Your task to perform on an android device: Search for Italian restaurants on Maps Image 0: 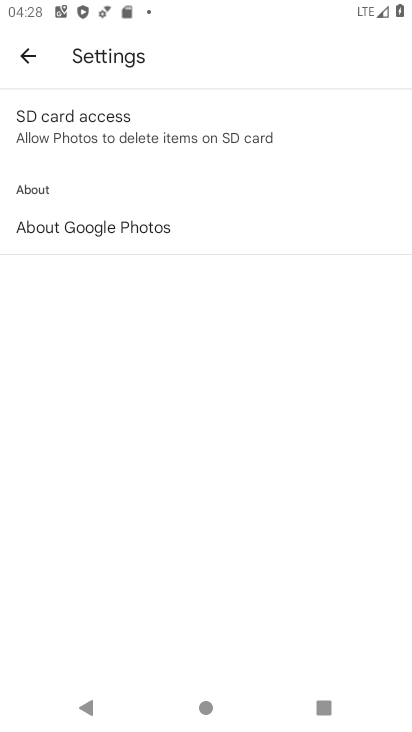
Step 0: press home button
Your task to perform on an android device: Search for Italian restaurants on Maps Image 1: 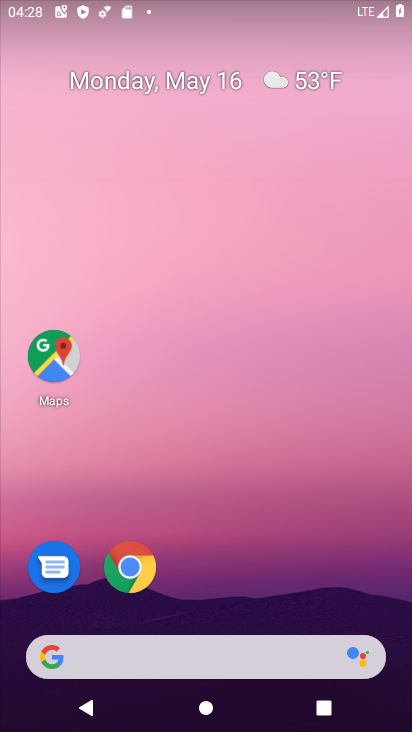
Step 1: drag from (185, 672) to (214, 117)
Your task to perform on an android device: Search for Italian restaurants on Maps Image 2: 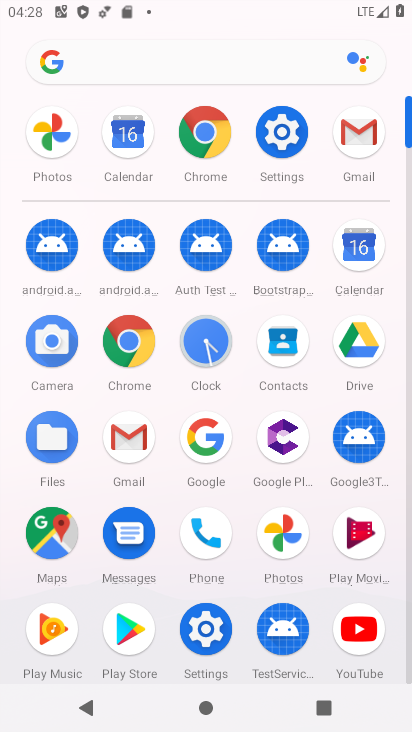
Step 2: click (62, 545)
Your task to perform on an android device: Search for Italian restaurants on Maps Image 3: 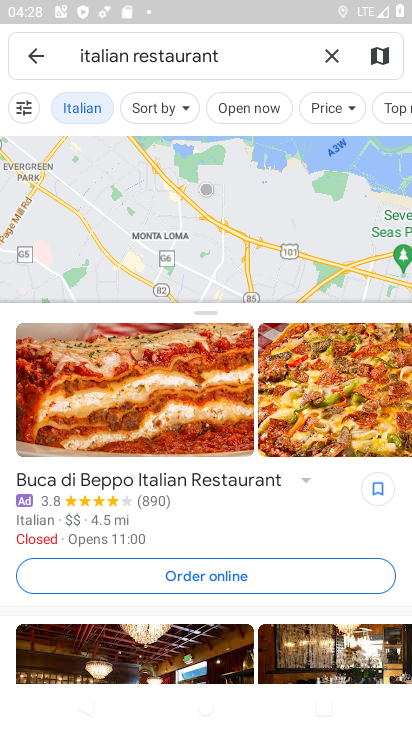
Step 3: task complete